Your task to perform on an android device: change keyboard looks Image 0: 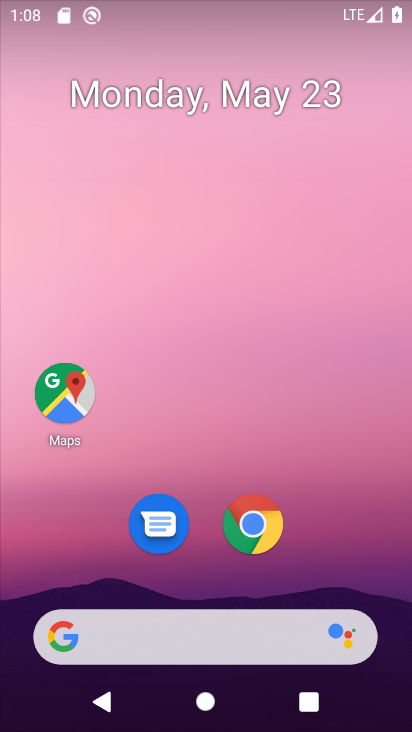
Step 0: drag from (322, 540) to (325, 54)
Your task to perform on an android device: change keyboard looks Image 1: 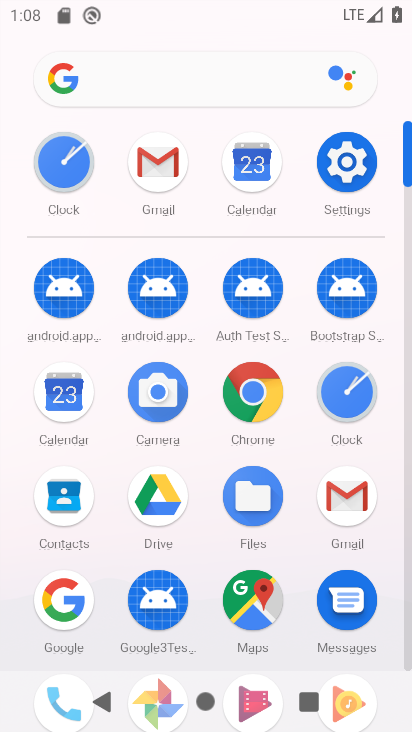
Step 1: click (356, 150)
Your task to perform on an android device: change keyboard looks Image 2: 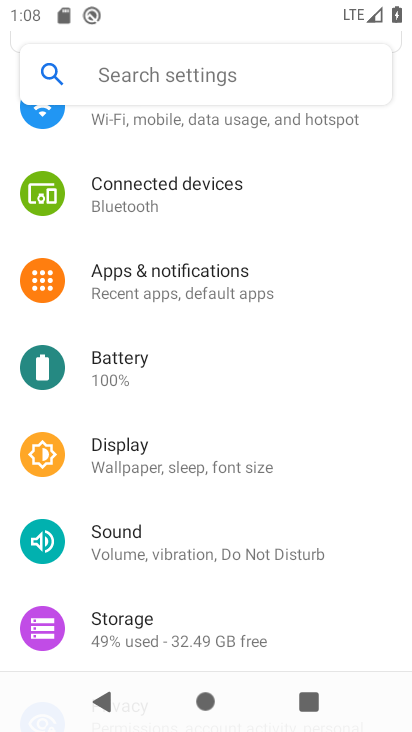
Step 2: drag from (216, 521) to (243, 21)
Your task to perform on an android device: change keyboard looks Image 3: 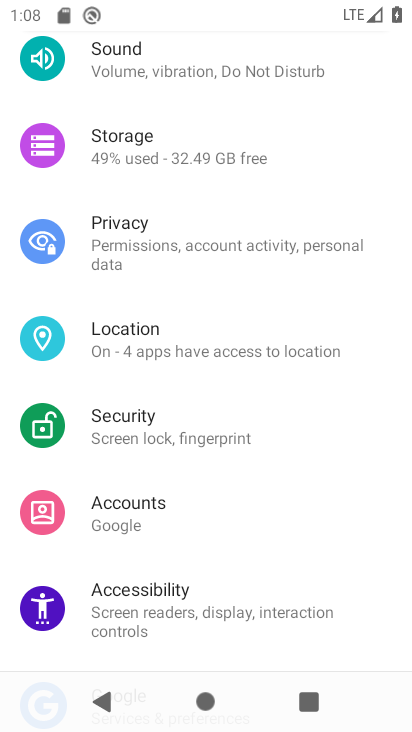
Step 3: drag from (257, 513) to (259, 1)
Your task to perform on an android device: change keyboard looks Image 4: 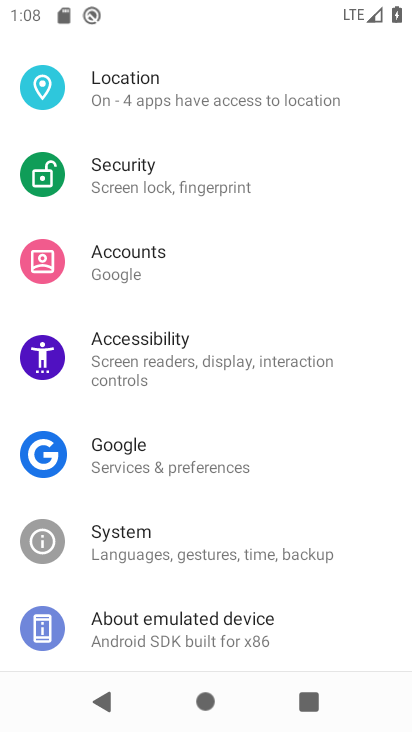
Step 4: click (260, 541)
Your task to perform on an android device: change keyboard looks Image 5: 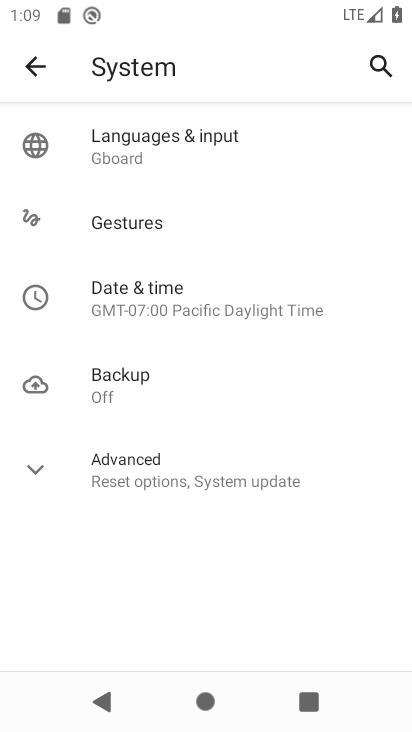
Step 5: click (220, 157)
Your task to perform on an android device: change keyboard looks Image 6: 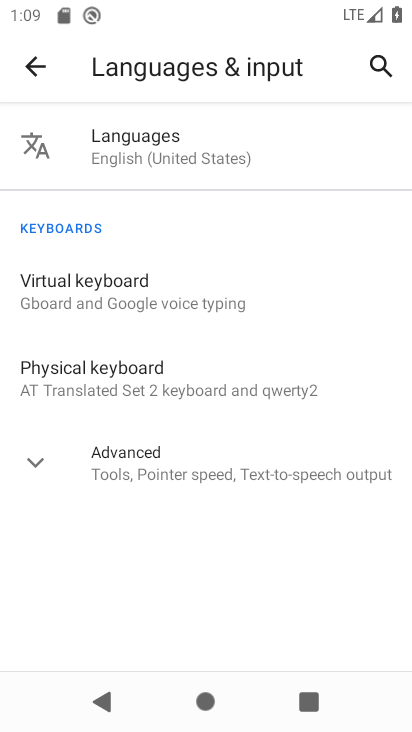
Step 6: click (141, 283)
Your task to perform on an android device: change keyboard looks Image 7: 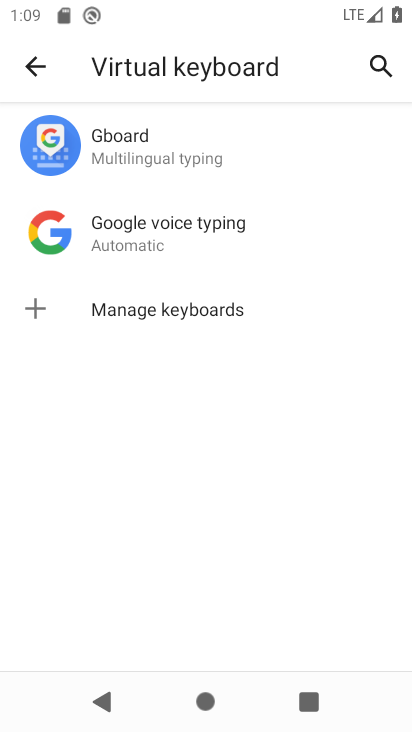
Step 7: click (141, 143)
Your task to perform on an android device: change keyboard looks Image 8: 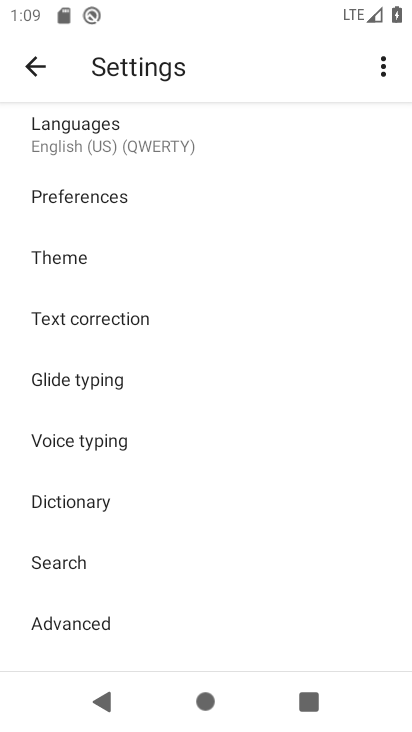
Step 8: click (88, 249)
Your task to perform on an android device: change keyboard looks Image 9: 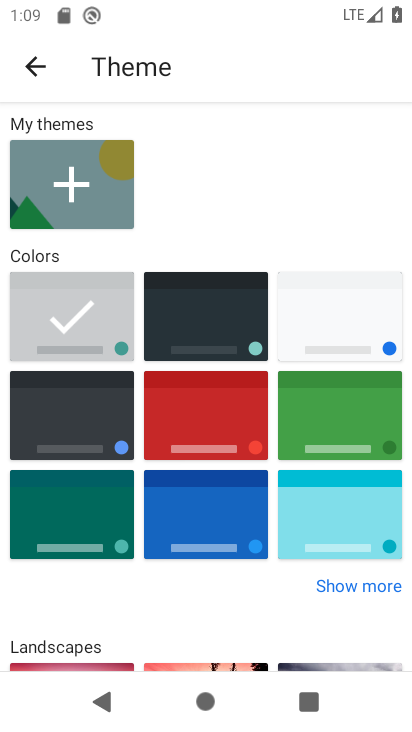
Step 9: click (203, 405)
Your task to perform on an android device: change keyboard looks Image 10: 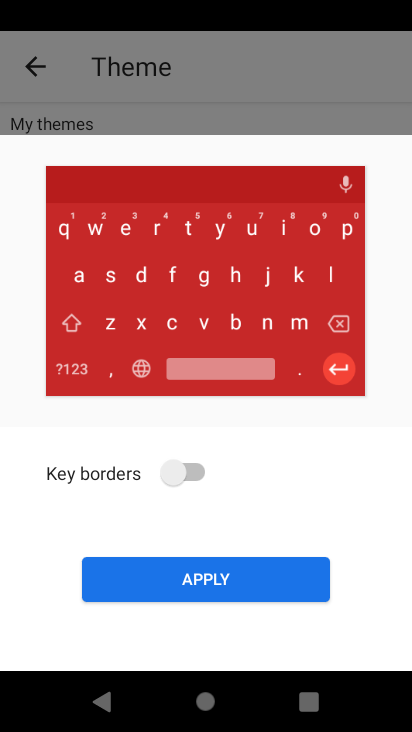
Step 10: click (199, 470)
Your task to perform on an android device: change keyboard looks Image 11: 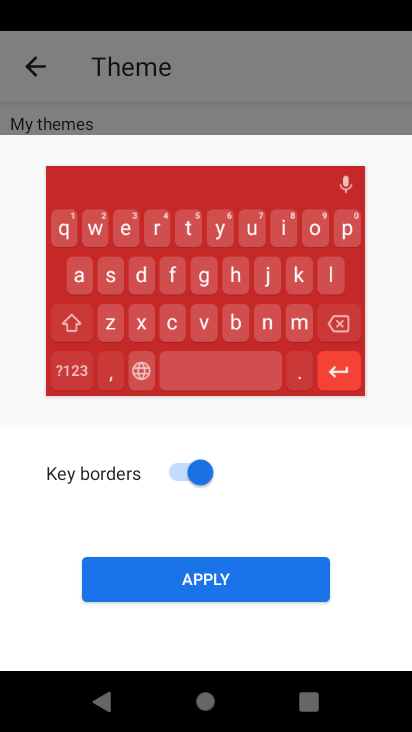
Step 11: click (221, 582)
Your task to perform on an android device: change keyboard looks Image 12: 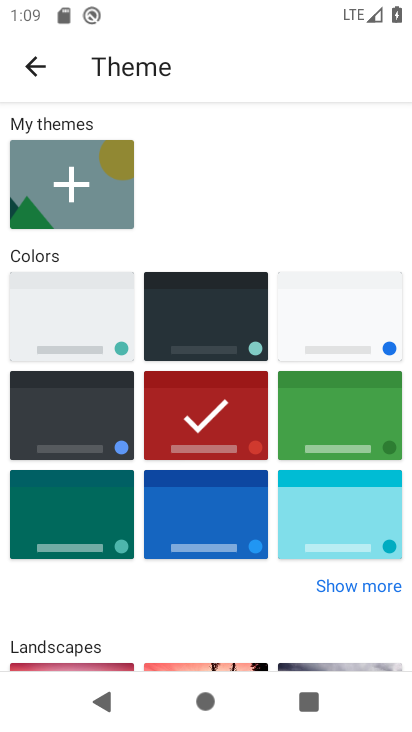
Step 12: task complete